Your task to perform on an android device: Search for the best gaming mouses on Amazon. Image 0: 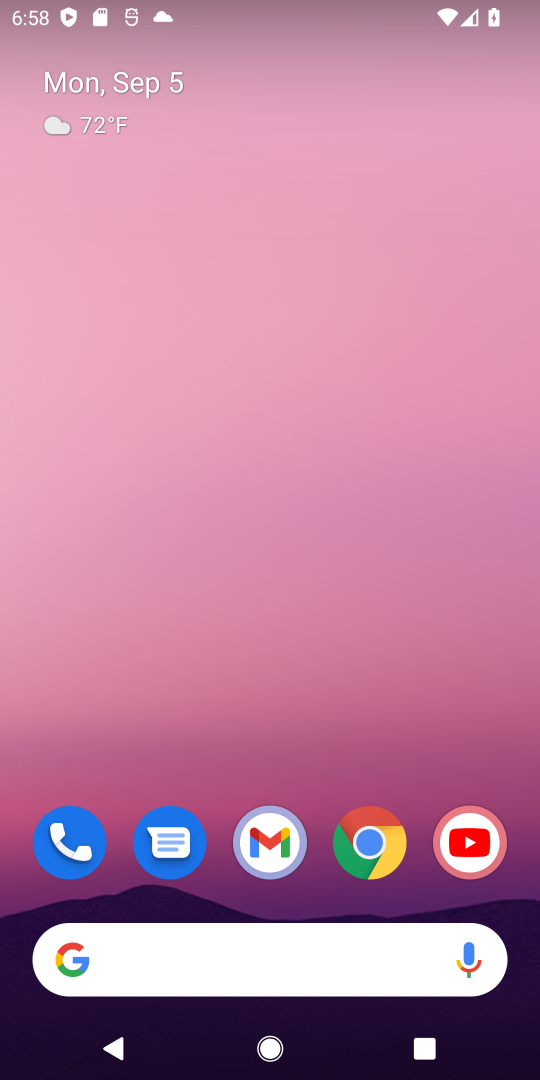
Step 0: click (370, 843)
Your task to perform on an android device: Search for the best gaming mouses on Amazon. Image 1: 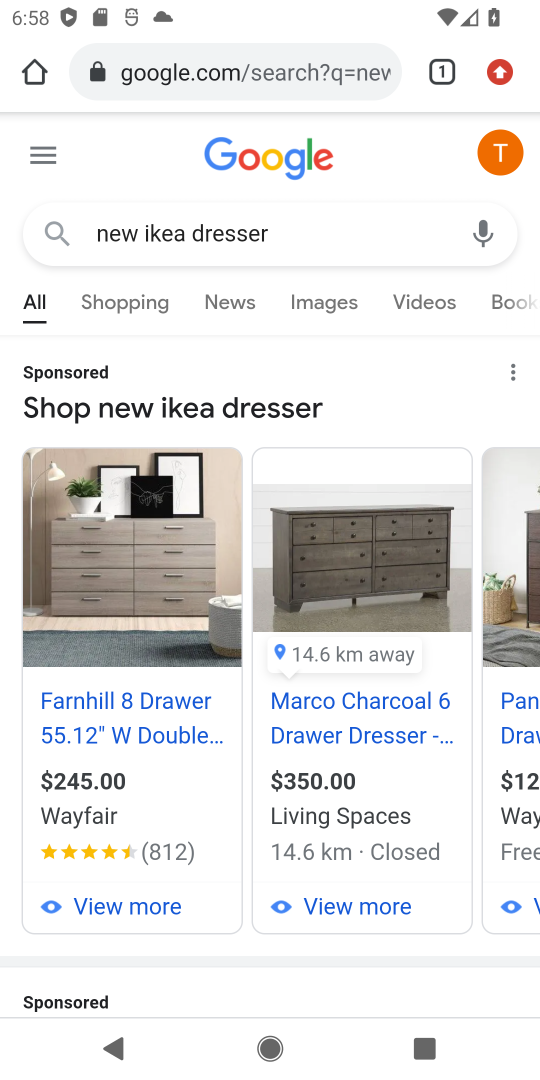
Step 1: click (314, 61)
Your task to perform on an android device: Search for the best gaming mouses on Amazon. Image 2: 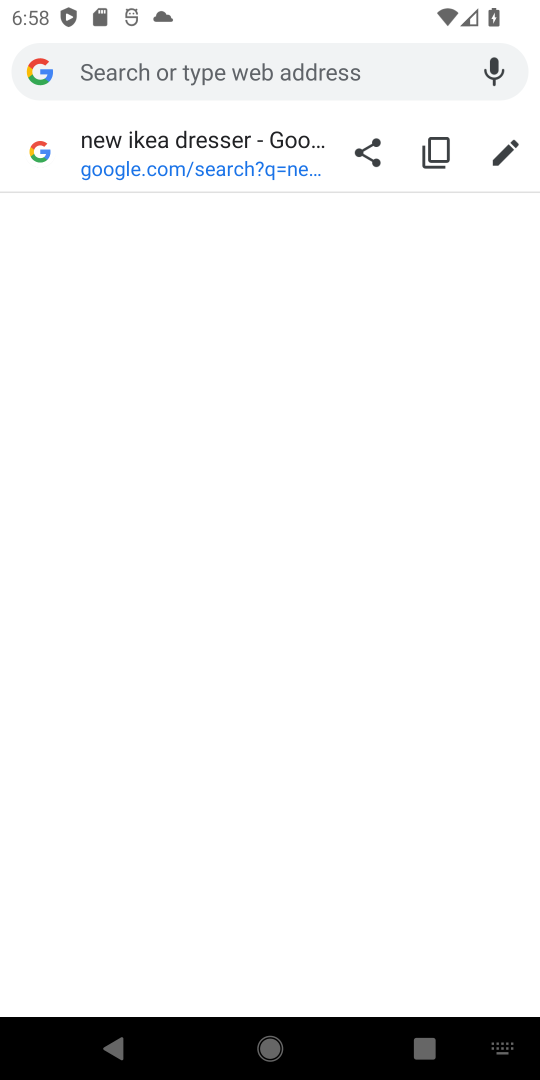
Step 2: type "Amazon"
Your task to perform on an android device: Search for the best gaming mouses on Amazon. Image 3: 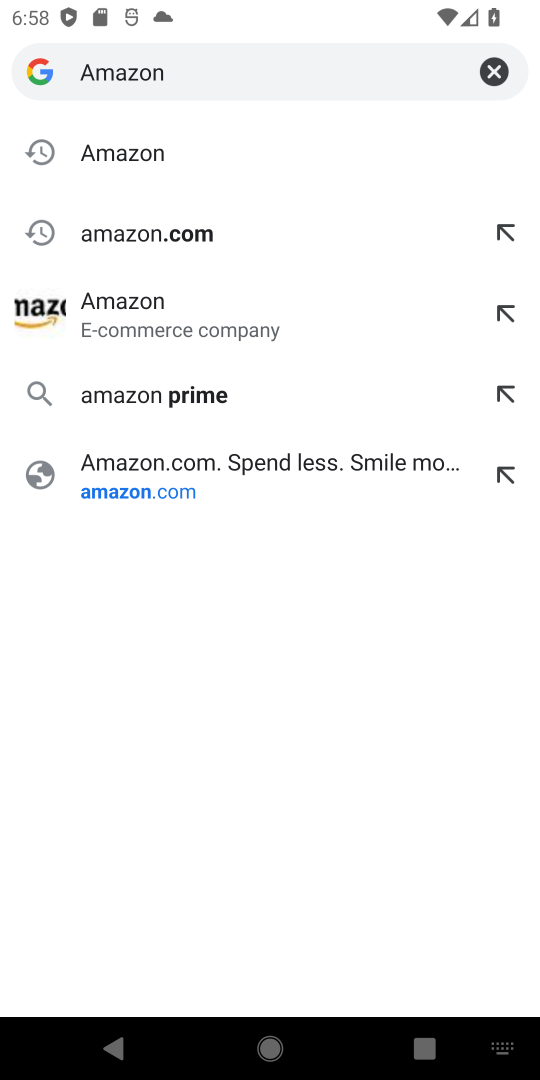
Step 3: click (136, 164)
Your task to perform on an android device: Search for the best gaming mouses on Amazon. Image 4: 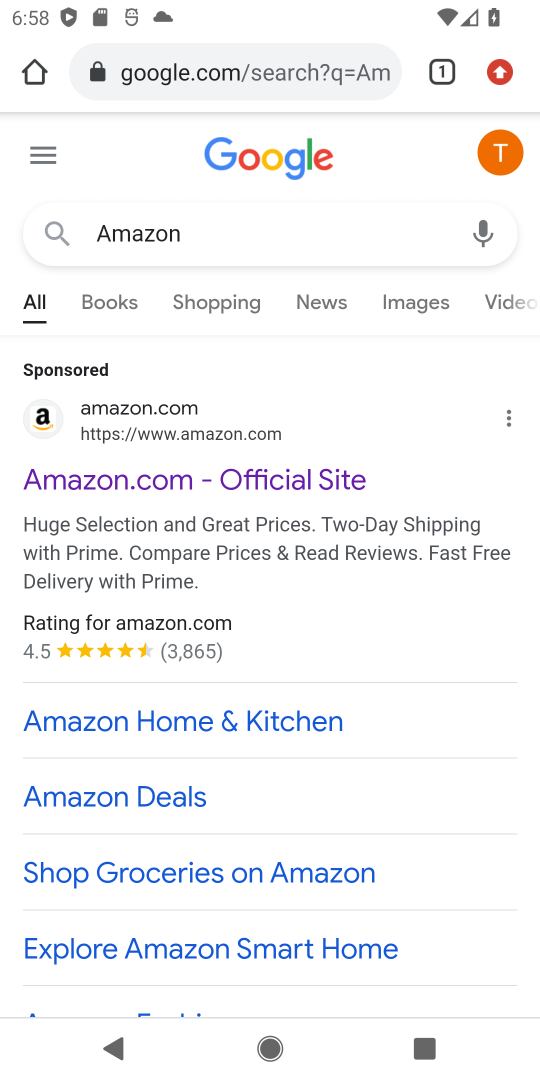
Step 4: click (182, 438)
Your task to perform on an android device: Search for the best gaming mouses on Amazon. Image 5: 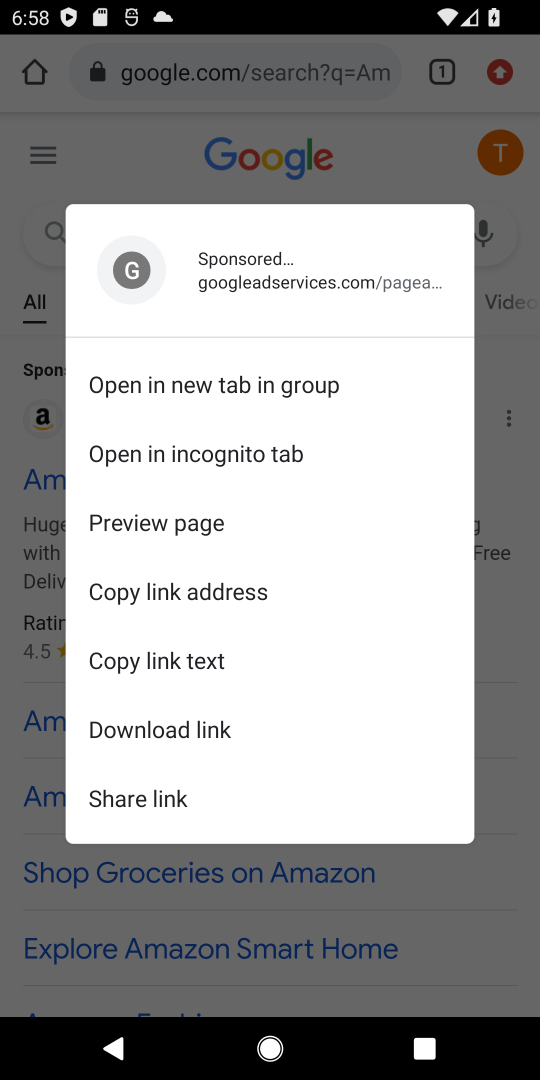
Step 5: click (178, 155)
Your task to perform on an android device: Search for the best gaming mouses on Amazon. Image 6: 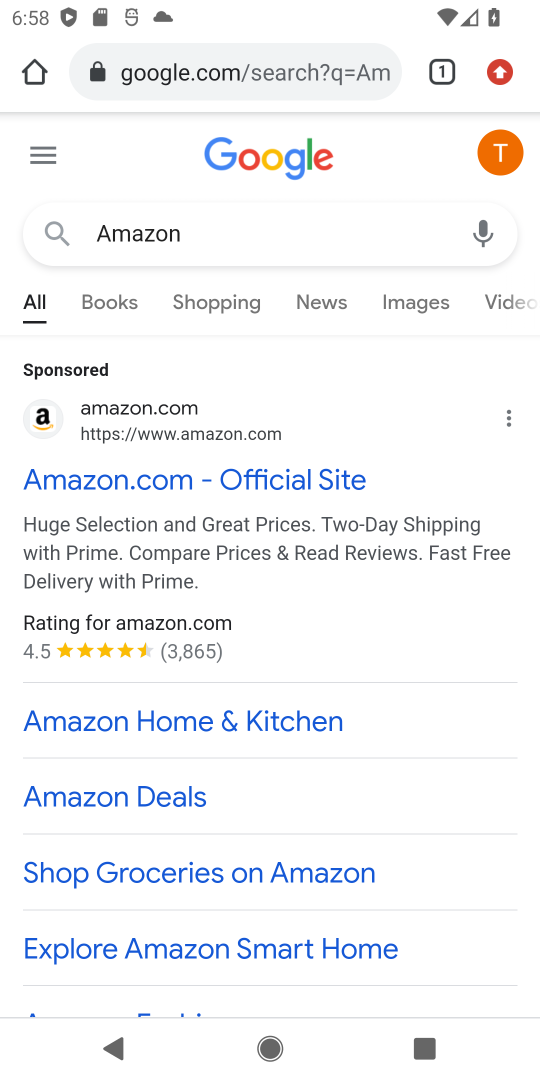
Step 6: click (272, 497)
Your task to perform on an android device: Search for the best gaming mouses on Amazon. Image 7: 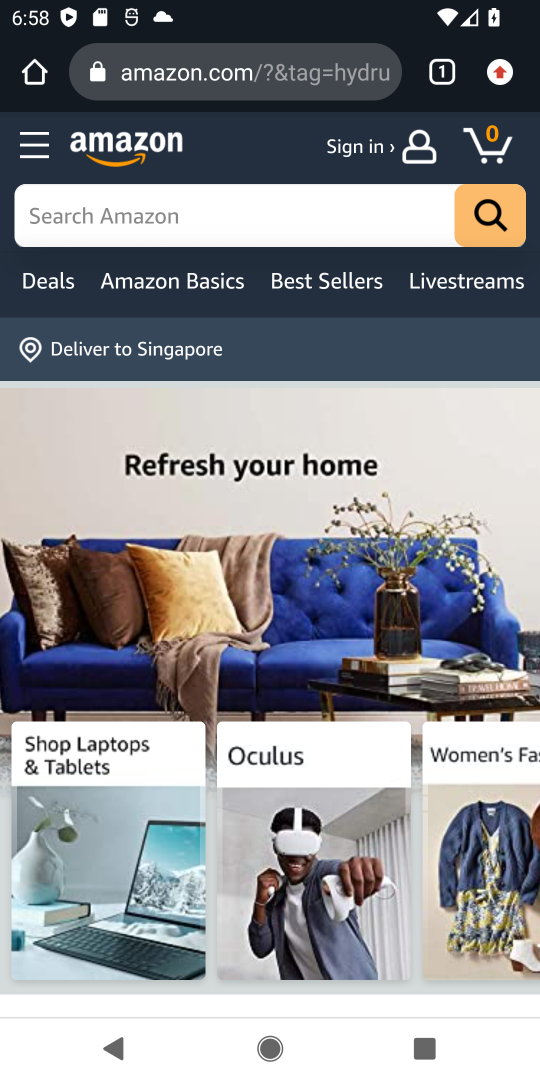
Step 7: click (155, 216)
Your task to perform on an android device: Search for the best gaming mouses on Amazon. Image 8: 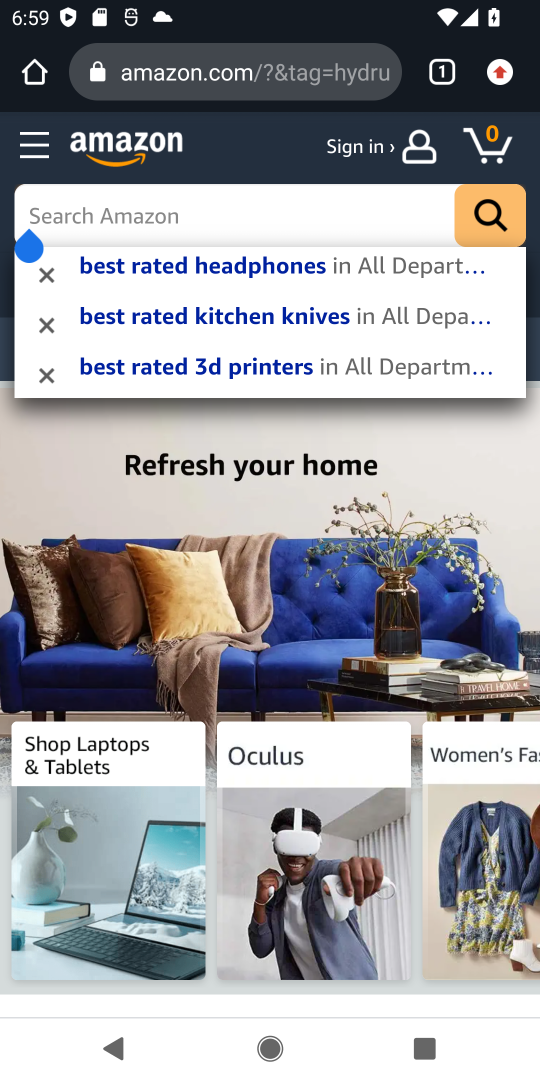
Step 8: type "best gaming mouses"
Your task to perform on an android device: Search for the best gaming mouses on Amazon. Image 9: 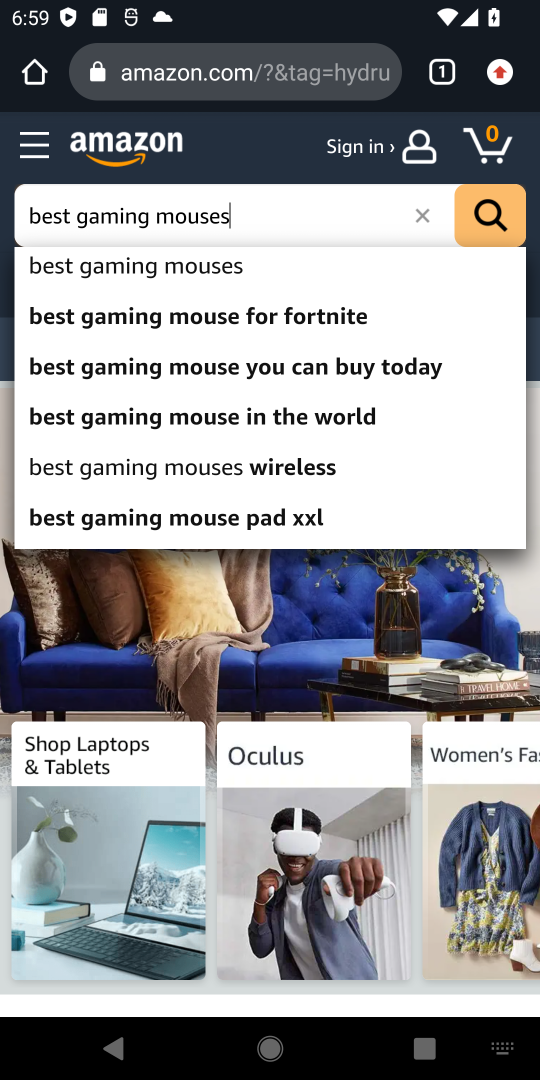
Step 9: click (480, 221)
Your task to perform on an android device: Search for the best gaming mouses on Amazon. Image 10: 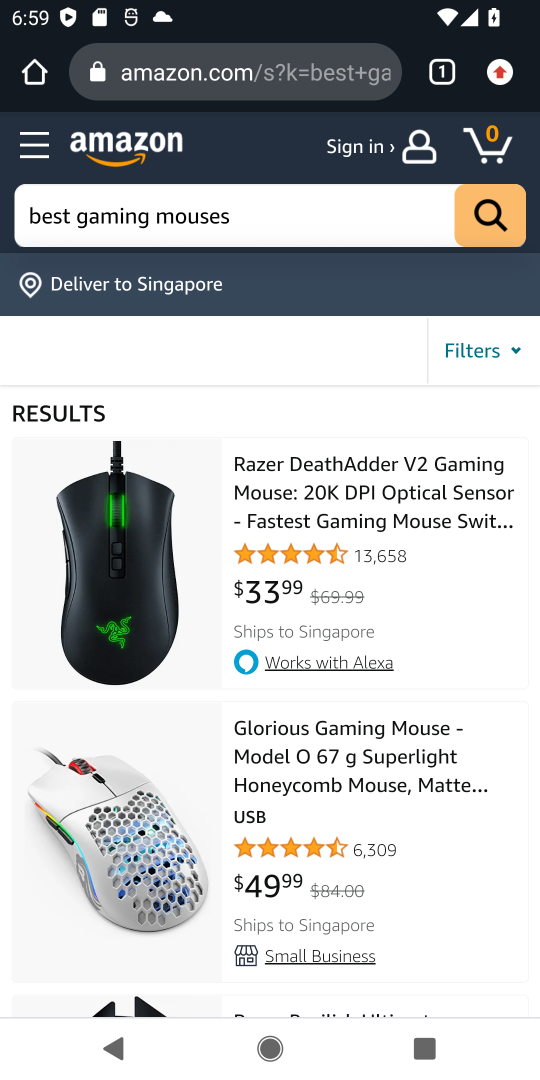
Step 10: task complete